Your task to perform on an android device: Is it going to rain today? Image 0: 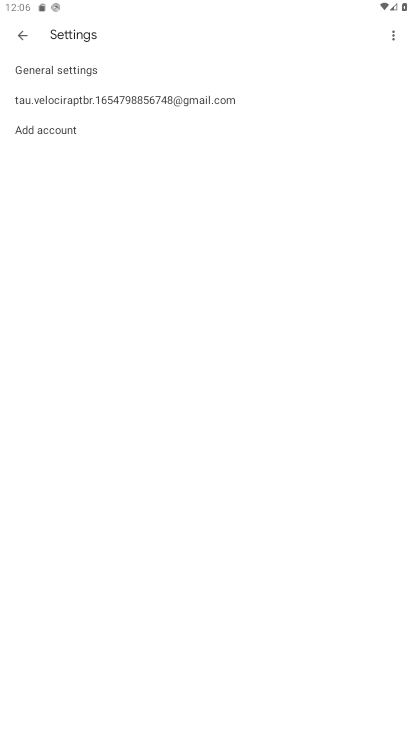
Step 0: press home button
Your task to perform on an android device: Is it going to rain today? Image 1: 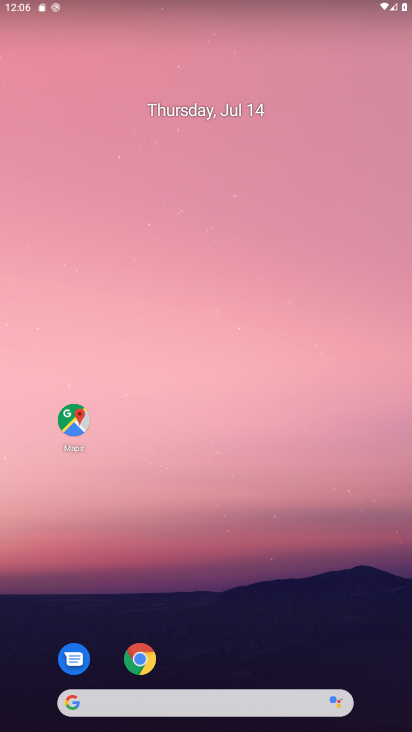
Step 1: drag from (290, 597) to (175, 84)
Your task to perform on an android device: Is it going to rain today? Image 2: 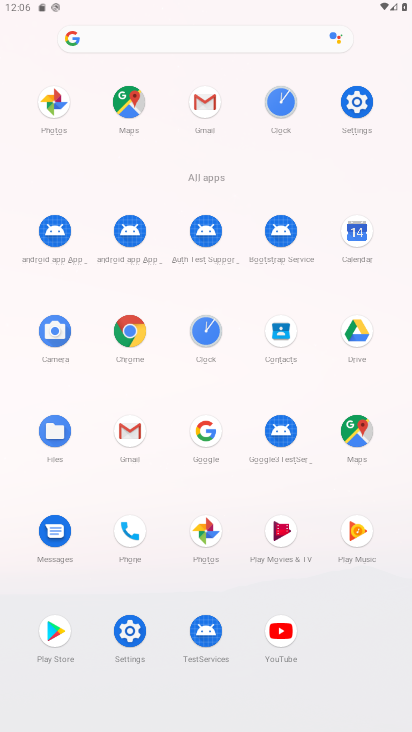
Step 2: click (132, 327)
Your task to perform on an android device: Is it going to rain today? Image 3: 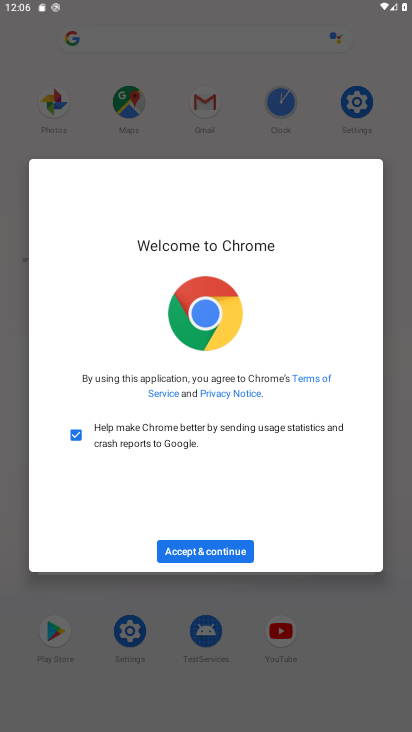
Step 3: click (227, 552)
Your task to perform on an android device: Is it going to rain today? Image 4: 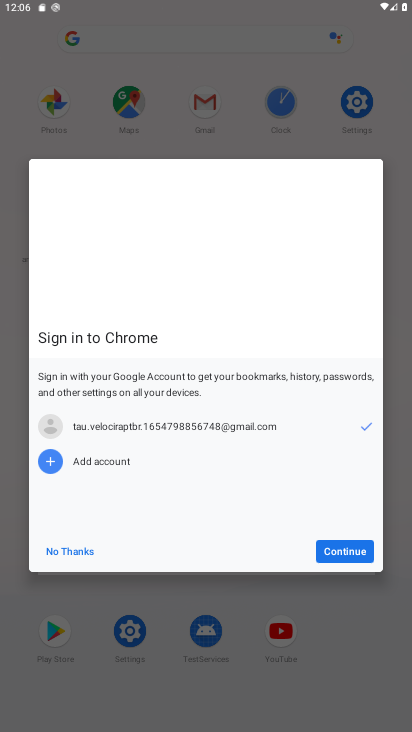
Step 4: click (338, 551)
Your task to perform on an android device: Is it going to rain today? Image 5: 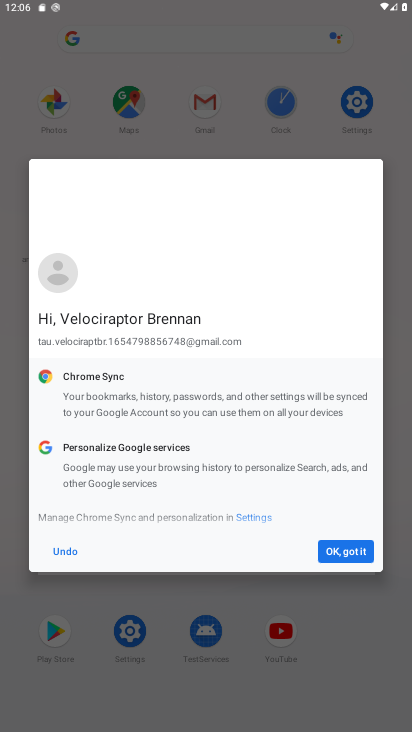
Step 5: click (341, 551)
Your task to perform on an android device: Is it going to rain today? Image 6: 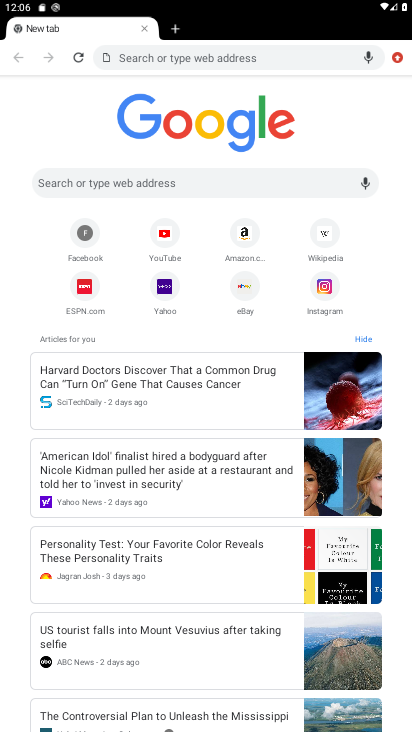
Step 6: type "weather"
Your task to perform on an android device: Is it going to rain today? Image 7: 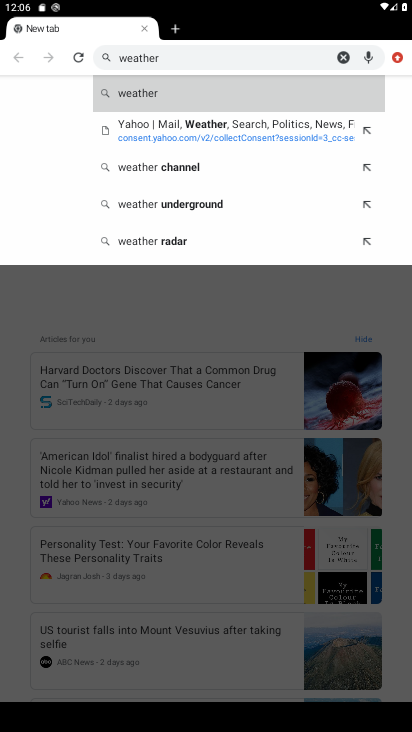
Step 7: click (131, 91)
Your task to perform on an android device: Is it going to rain today? Image 8: 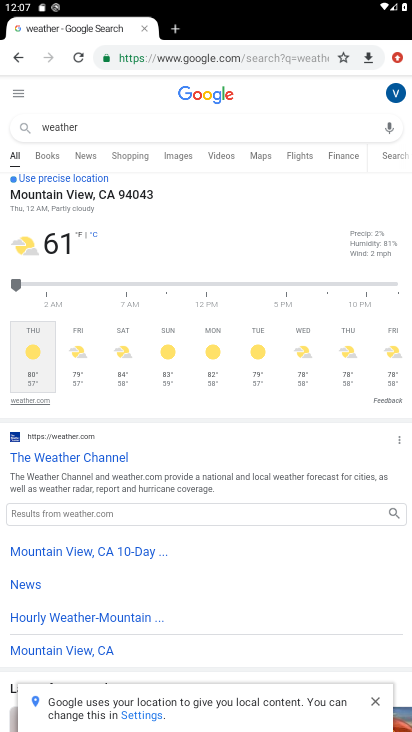
Step 8: task complete